Your task to perform on an android device: open the mobile data screen to see how much data has been used Image 0: 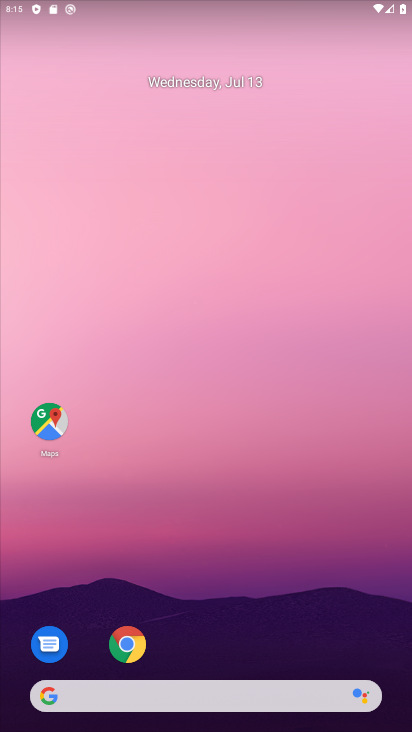
Step 0: drag from (233, 723) to (217, 170)
Your task to perform on an android device: open the mobile data screen to see how much data has been used Image 1: 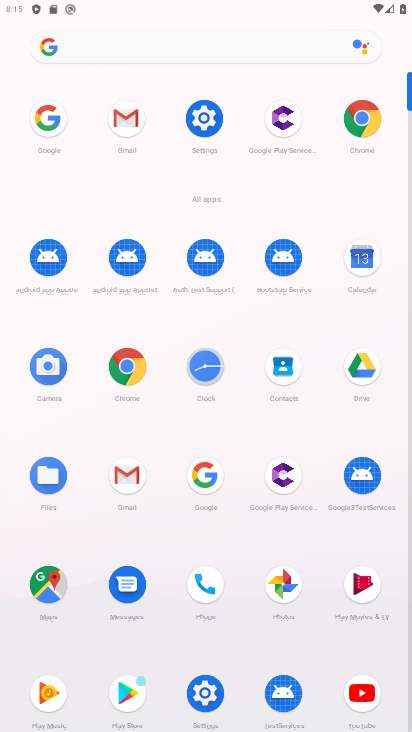
Step 1: click (206, 117)
Your task to perform on an android device: open the mobile data screen to see how much data has been used Image 2: 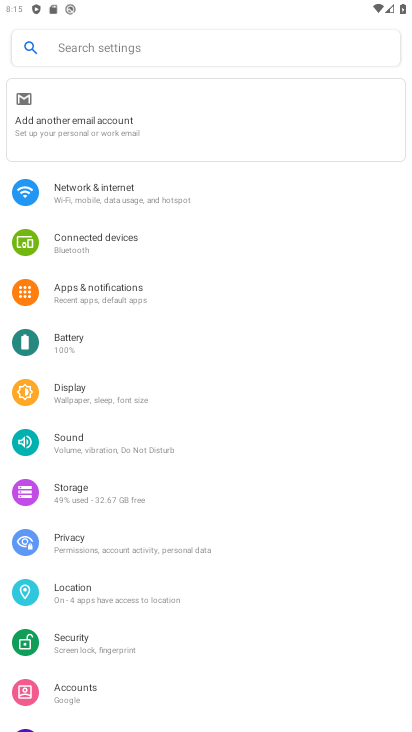
Step 2: click (81, 196)
Your task to perform on an android device: open the mobile data screen to see how much data has been used Image 3: 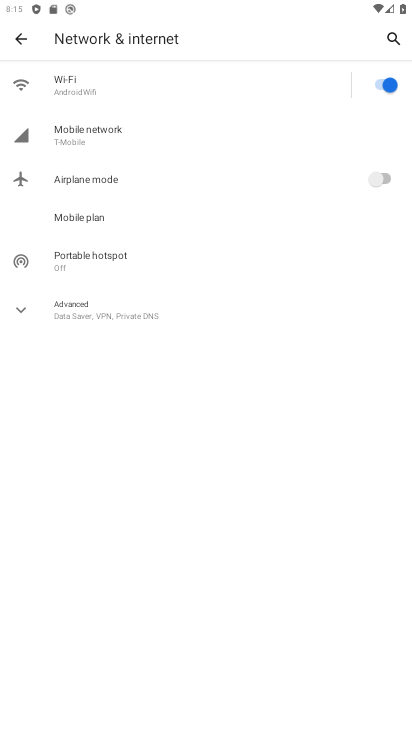
Step 3: click (81, 132)
Your task to perform on an android device: open the mobile data screen to see how much data has been used Image 4: 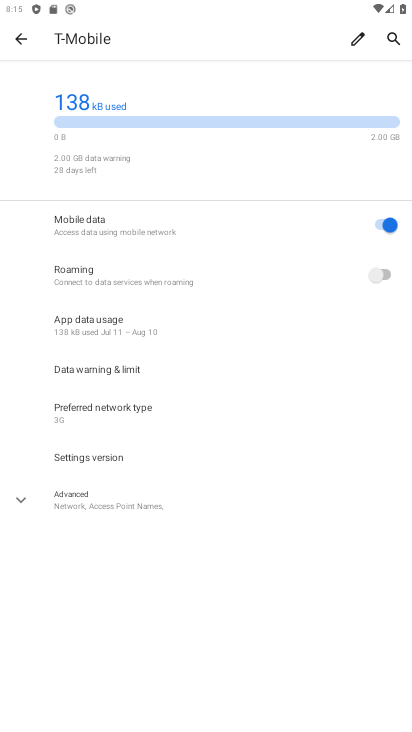
Step 4: click (92, 316)
Your task to perform on an android device: open the mobile data screen to see how much data has been used Image 5: 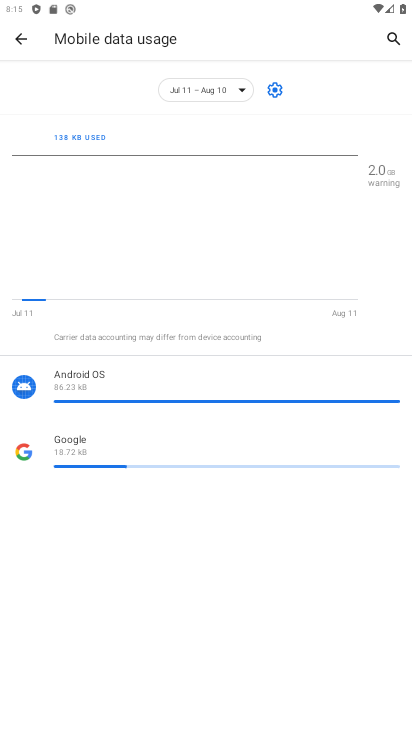
Step 5: task complete